Your task to perform on an android device: Open Youtube and go to the subscriptions tab Image 0: 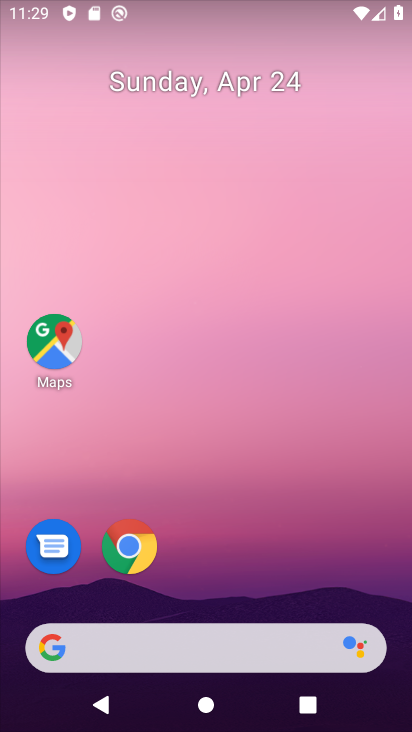
Step 0: press home button
Your task to perform on an android device: Open Youtube and go to the subscriptions tab Image 1: 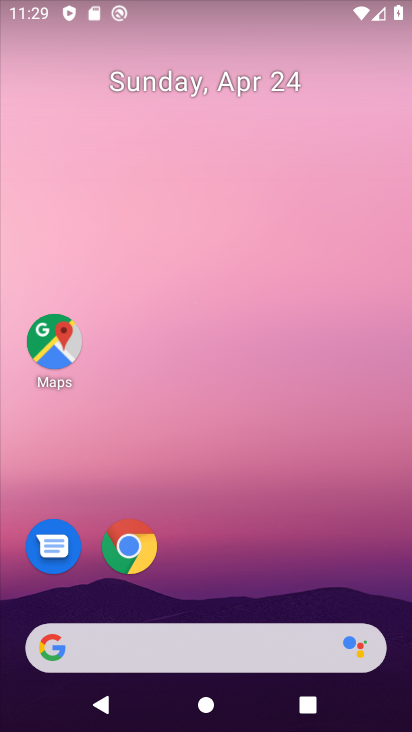
Step 1: drag from (214, 586) to (196, 227)
Your task to perform on an android device: Open Youtube and go to the subscriptions tab Image 2: 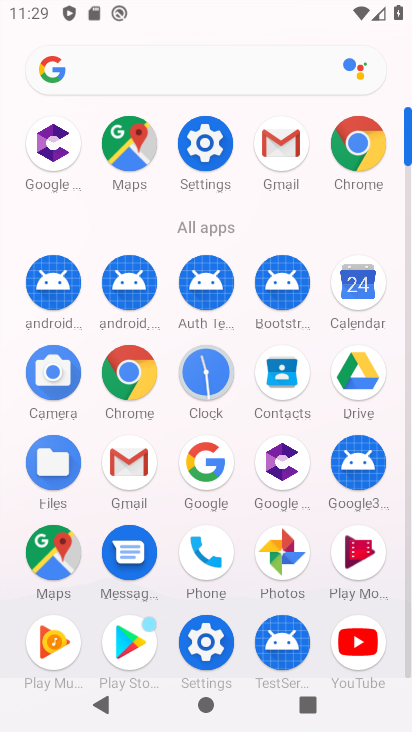
Step 2: click (349, 648)
Your task to perform on an android device: Open Youtube and go to the subscriptions tab Image 3: 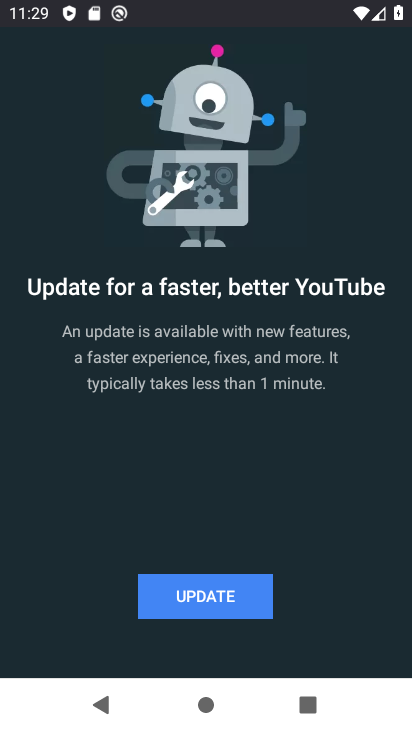
Step 3: click (203, 582)
Your task to perform on an android device: Open Youtube and go to the subscriptions tab Image 4: 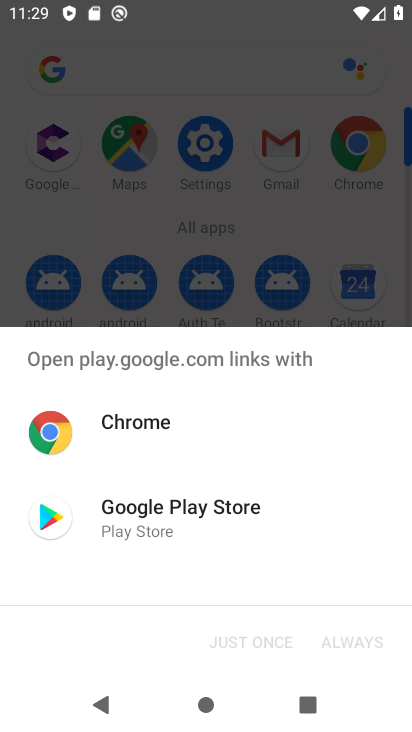
Step 4: click (184, 495)
Your task to perform on an android device: Open Youtube and go to the subscriptions tab Image 5: 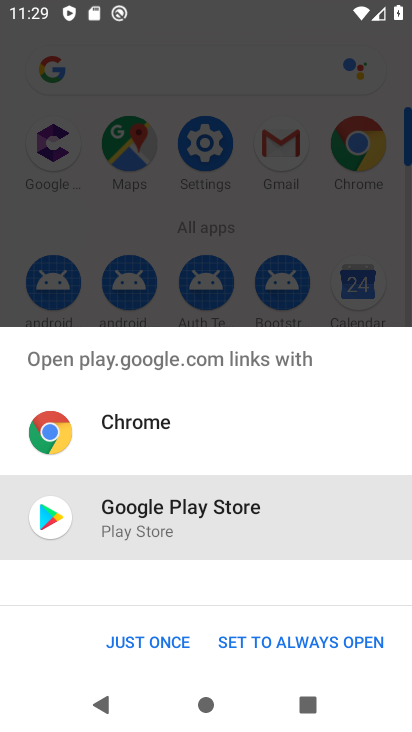
Step 5: click (166, 637)
Your task to perform on an android device: Open Youtube and go to the subscriptions tab Image 6: 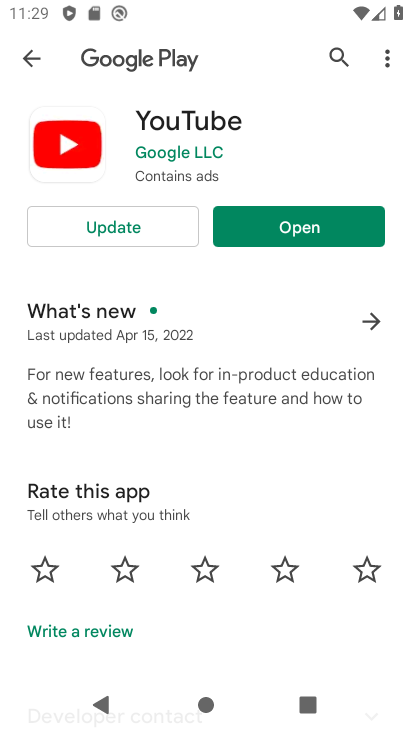
Step 6: click (144, 213)
Your task to perform on an android device: Open Youtube and go to the subscriptions tab Image 7: 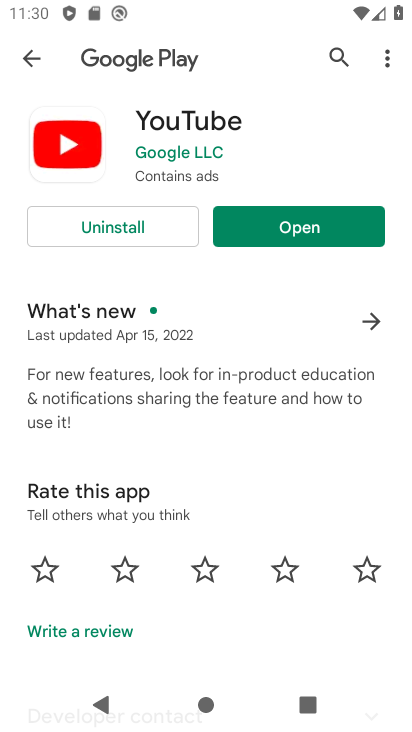
Step 7: click (227, 233)
Your task to perform on an android device: Open Youtube and go to the subscriptions tab Image 8: 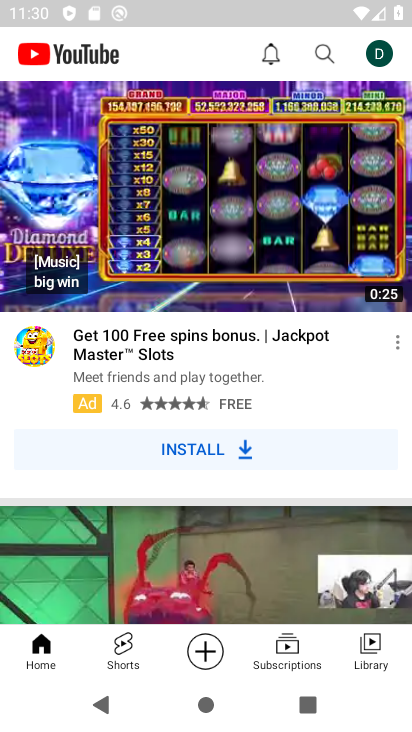
Step 8: click (280, 646)
Your task to perform on an android device: Open Youtube and go to the subscriptions tab Image 9: 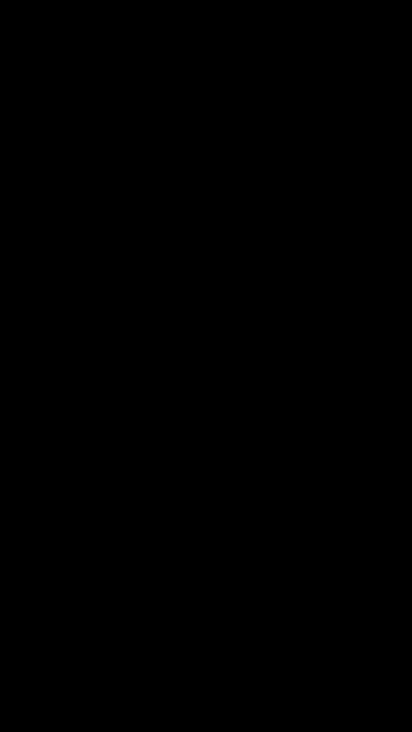
Step 9: task complete